Your task to perform on an android device: Search for the new Nintendo switch on Best Buy Image 0: 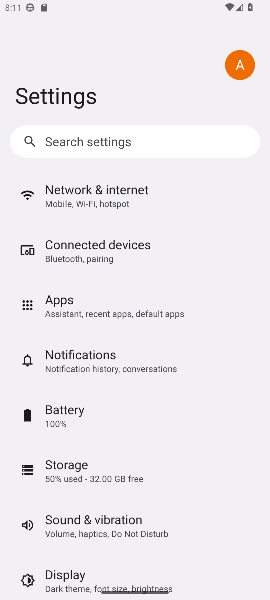
Step 0: press home button
Your task to perform on an android device: Search for the new Nintendo switch on Best Buy Image 1: 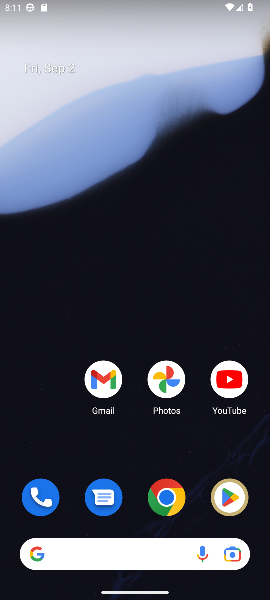
Step 1: drag from (136, 532) to (157, 164)
Your task to perform on an android device: Search for the new Nintendo switch on Best Buy Image 2: 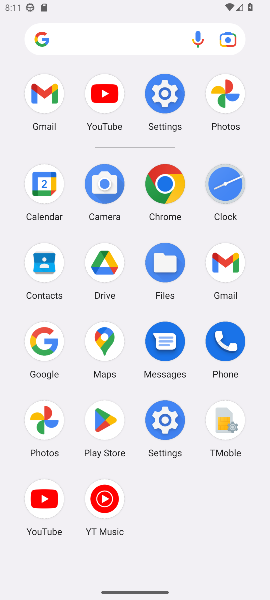
Step 2: click (42, 350)
Your task to perform on an android device: Search for the new Nintendo switch on Best Buy Image 3: 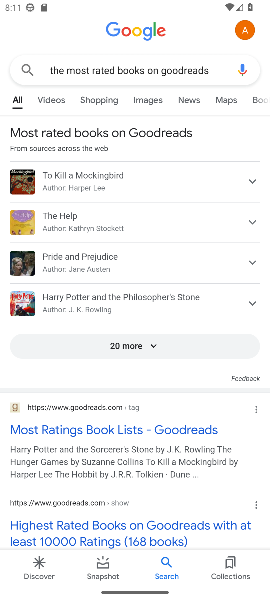
Step 3: click (220, 66)
Your task to perform on an android device: Search for the new Nintendo switch on Best Buy Image 4: 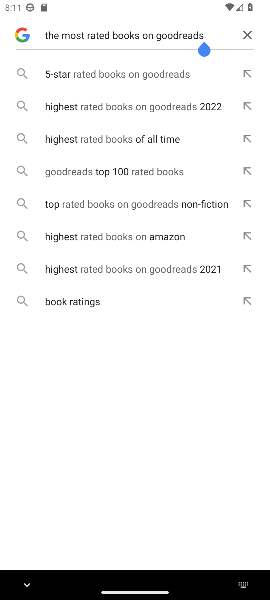
Step 4: click (246, 34)
Your task to perform on an android device: Search for the new Nintendo switch on Best Buy Image 5: 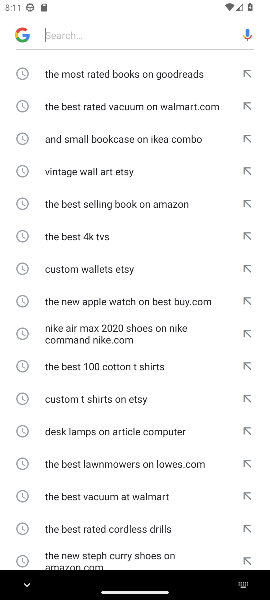
Step 5: type "the new Nintendo switch on Best Buy"
Your task to perform on an android device: Search for the new Nintendo switch on Best Buy Image 6: 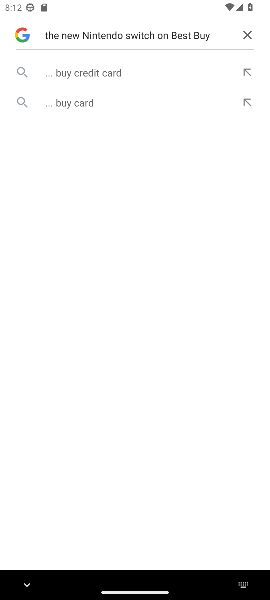
Step 6: click (83, 107)
Your task to perform on an android device: Search for the new Nintendo switch on Best Buy Image 7: 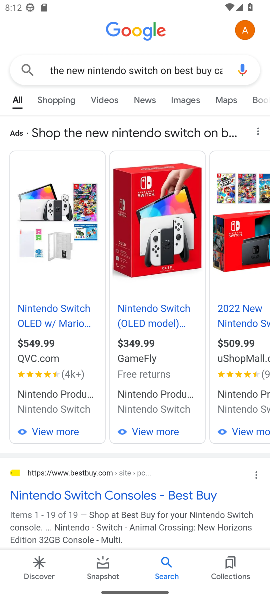
Step 7: click (102, 496)
Your task to perform on an android device: Search for the new Nintendo switch on Best Buy Image 8: 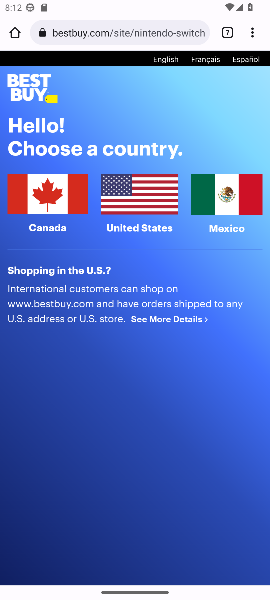
Step 8: task complete